Your task to perform on an android device: Show me recent news Image 0: 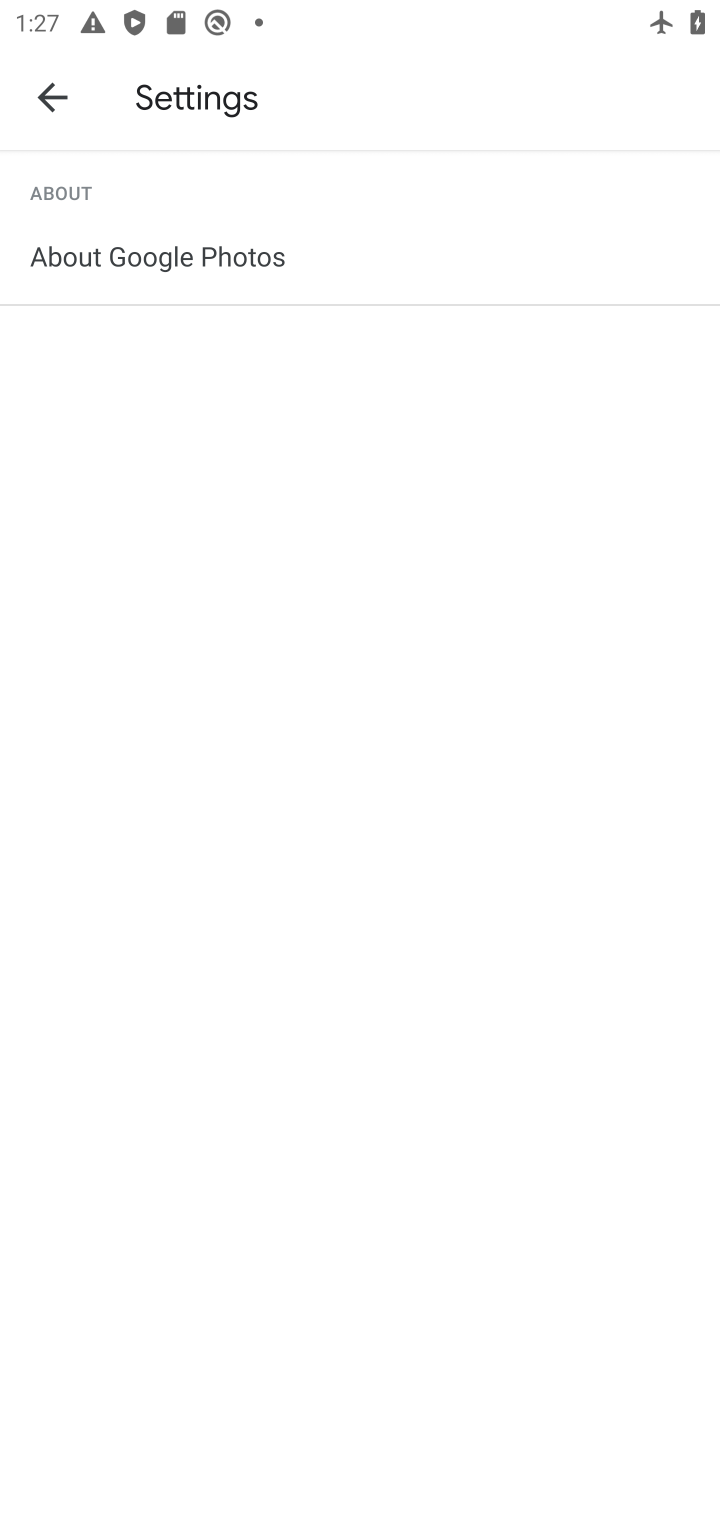
Step 0: press home button
Your task to perform on an android device: Show me recent news Image 1: 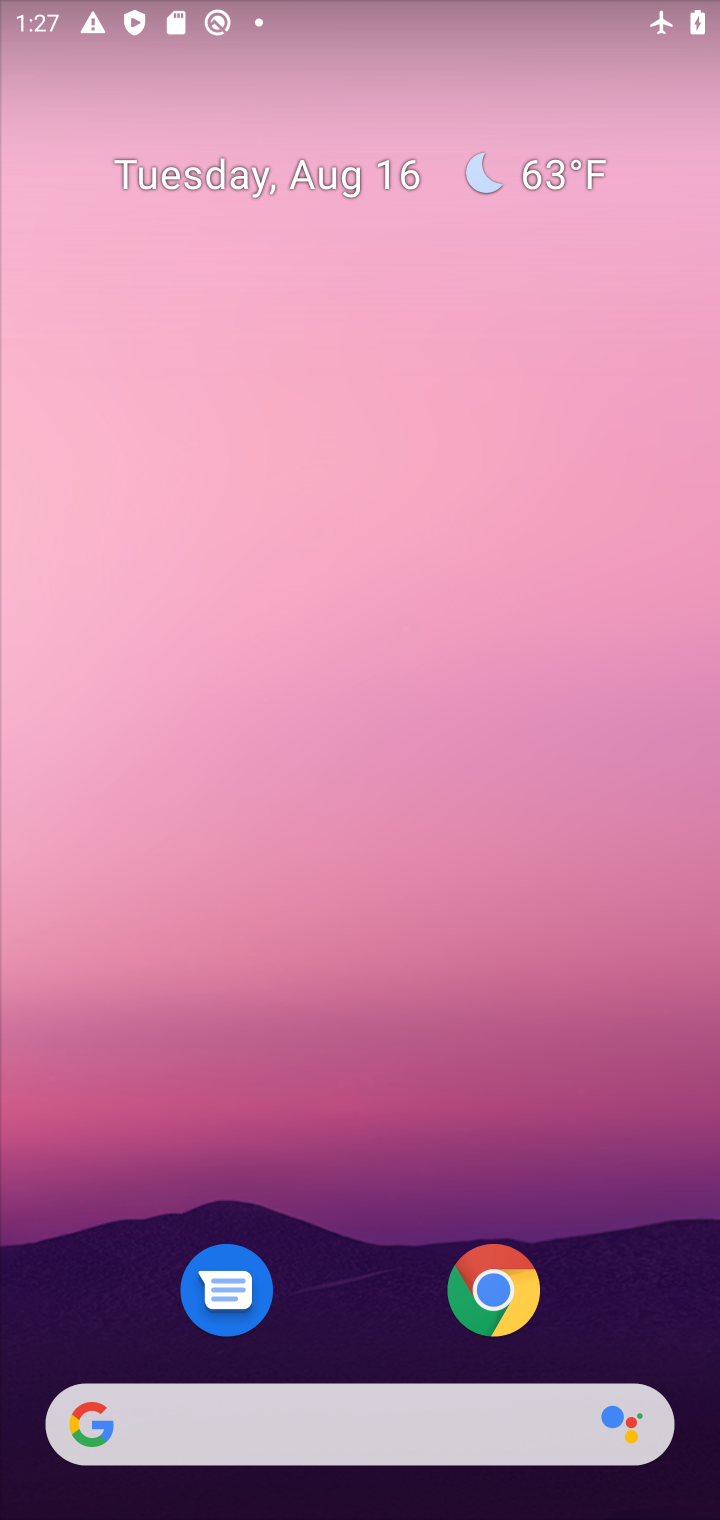
Step 1: click (255, 1427)
Your task to perform on an android device: Show me recent news Image 2: 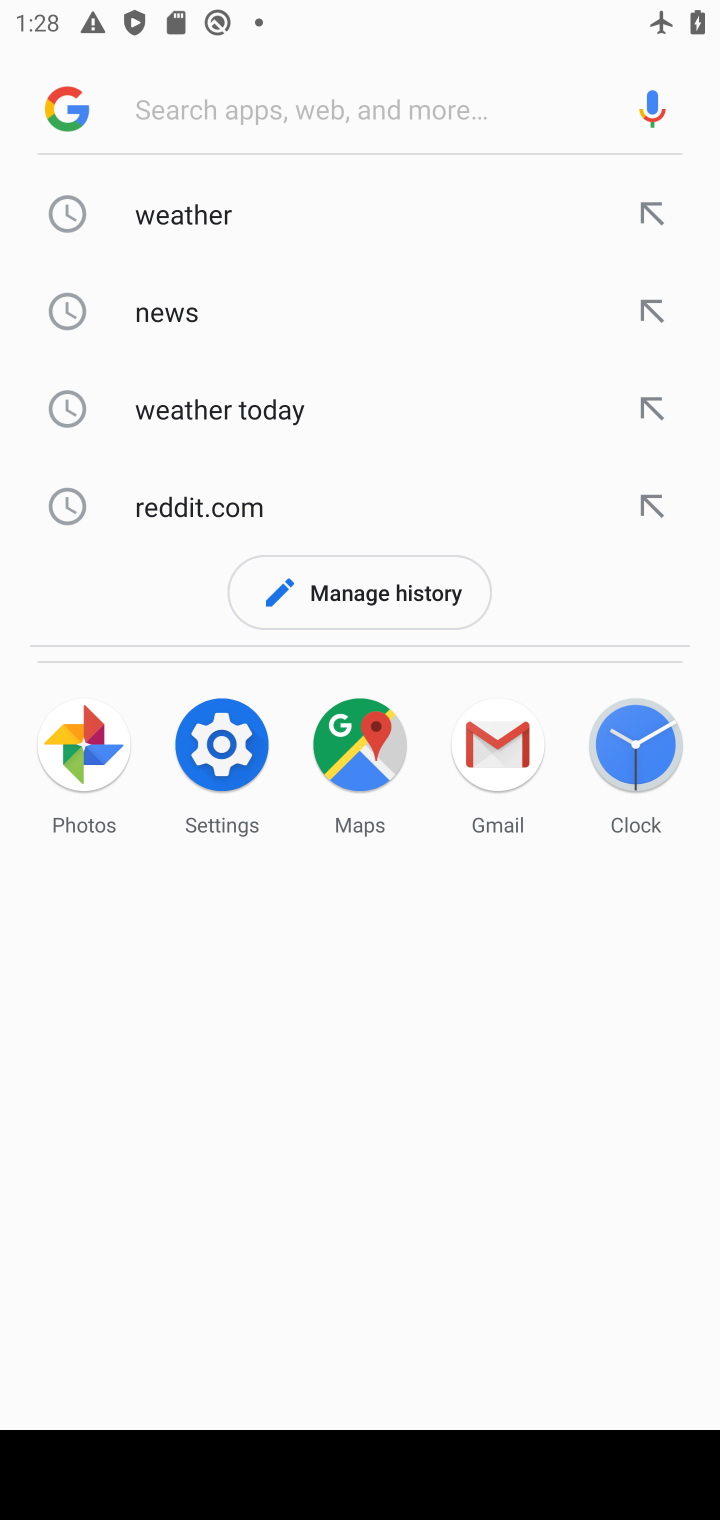
Step 2: click (139, 315)
Your task to perform on an android device: Show me recent news Image 3: 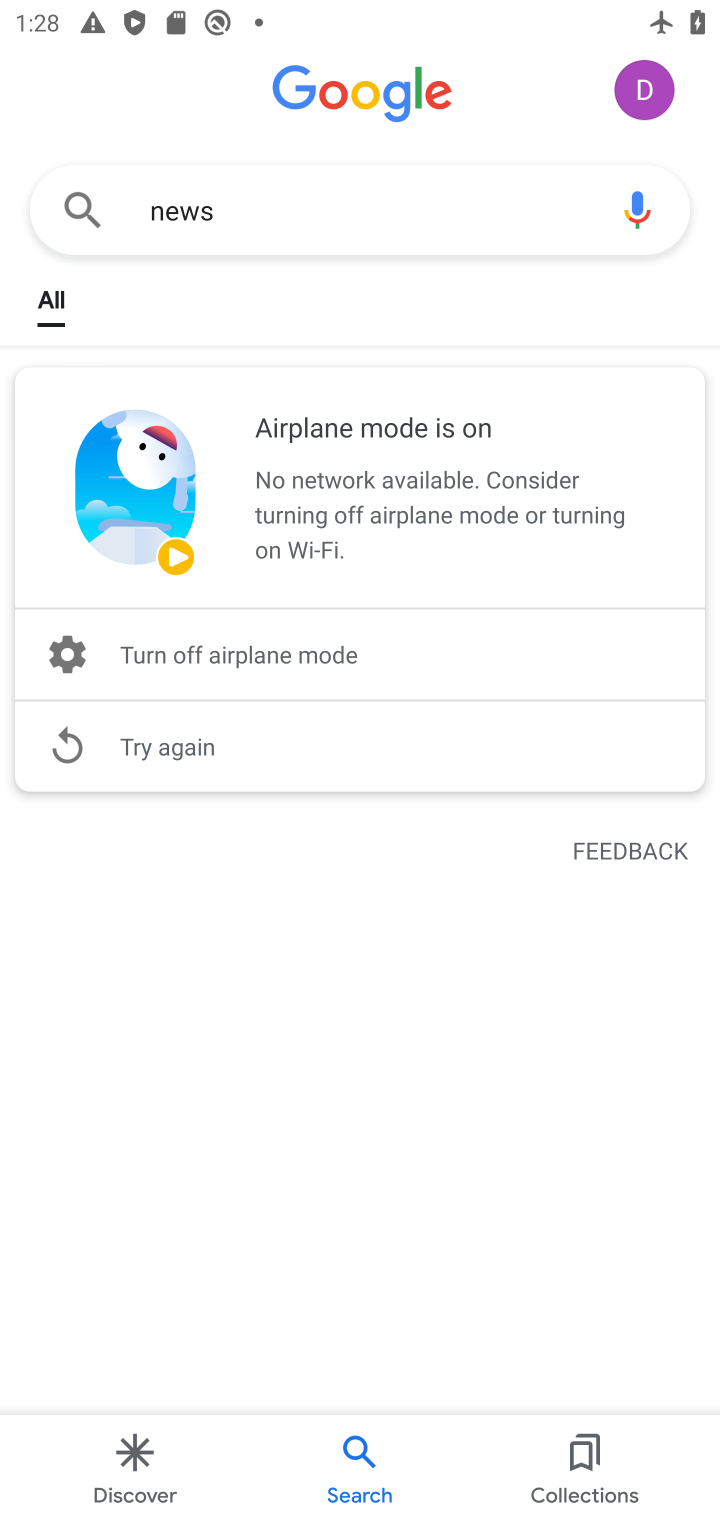
Step 3: task complete